Your task to perform on an android device: open sync settings in chrome Image 0: 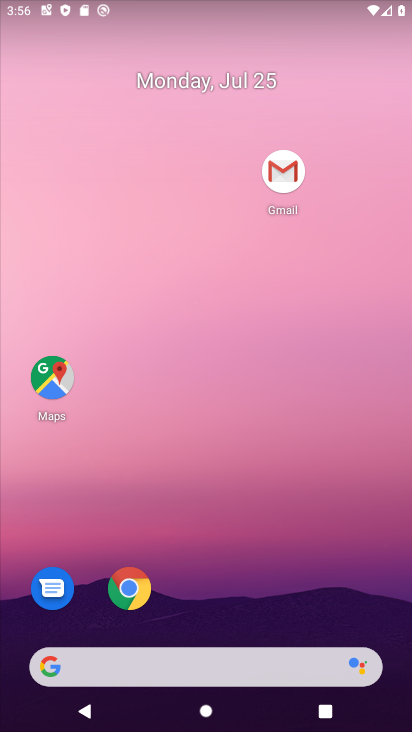
Step 0: drag from (251, 591) to (245, 82)
Your task to perform on an android device: open sync settings in chrome Image 1: 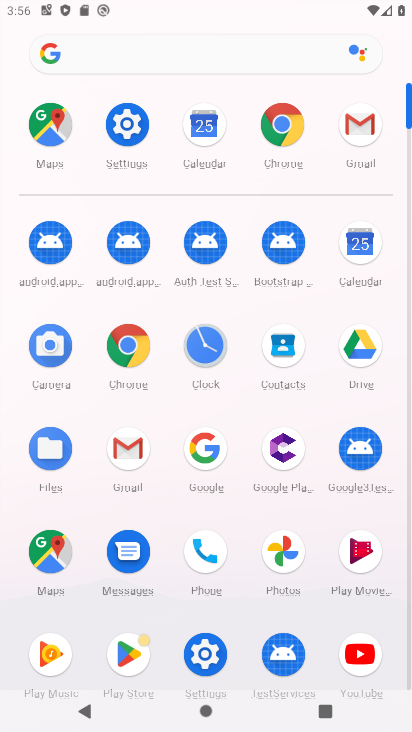
Step 1: click (133, 350)
Your task to perform on an android device: open sync settings in chrome Image 2: 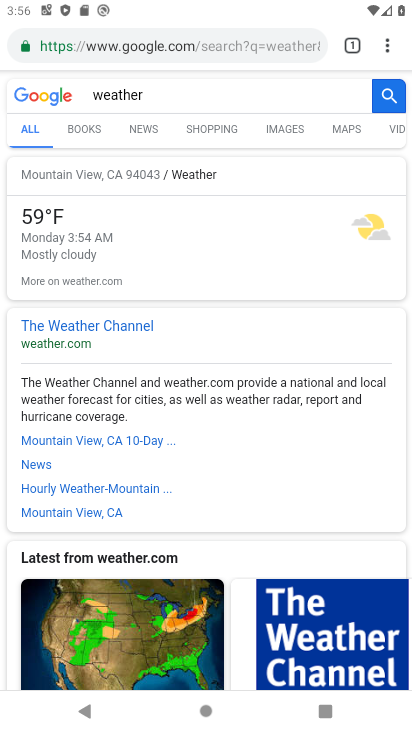
Step 2: drag from (380, 53) to (232, 521)
Your task to perform on an android device: open sync settings in chrome Image 3: 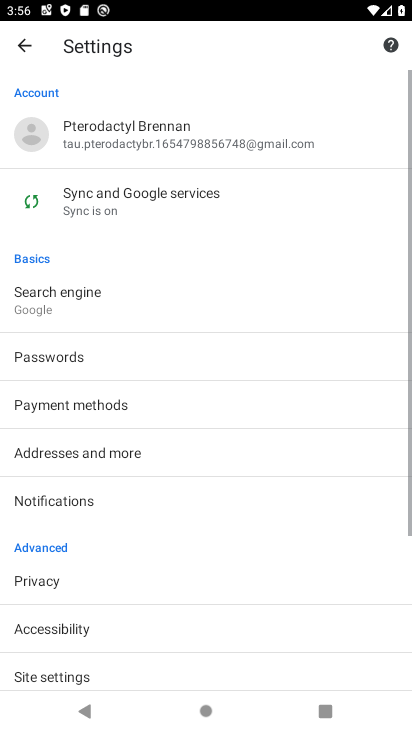
Step 3: drag from (235, 526) to (315, 160)
Your task to perform on an android device: open sync settings in chrome Image 4: 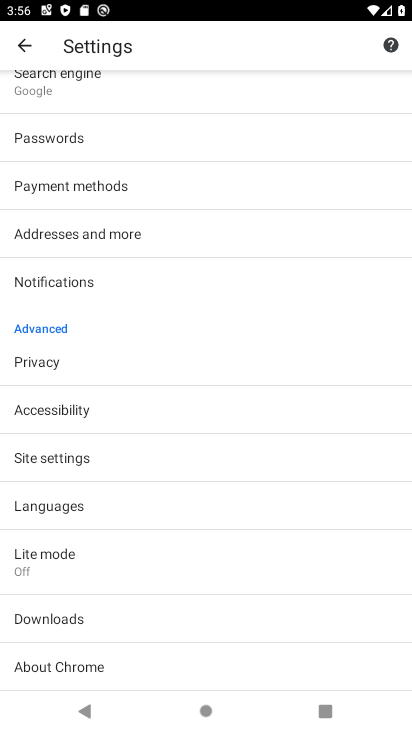
Step 4: drag from (225, 144) to (202, 692)
Your task to perform on an android device: open sync settings in chrome Image 5: 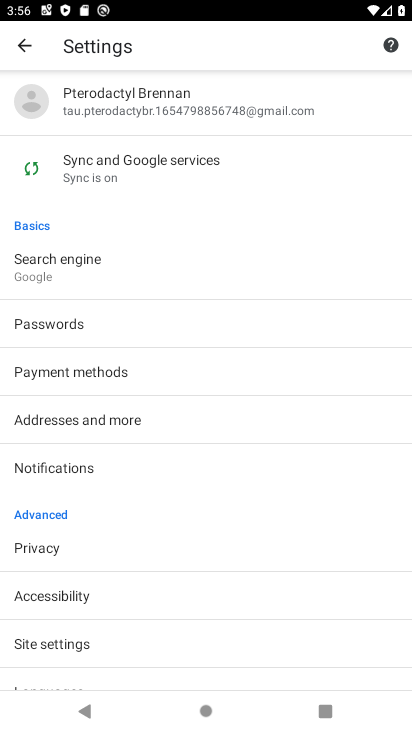
Step 5: click (182, 122)
Your task to perform on an android device: open sync settings in chrome Image 6: 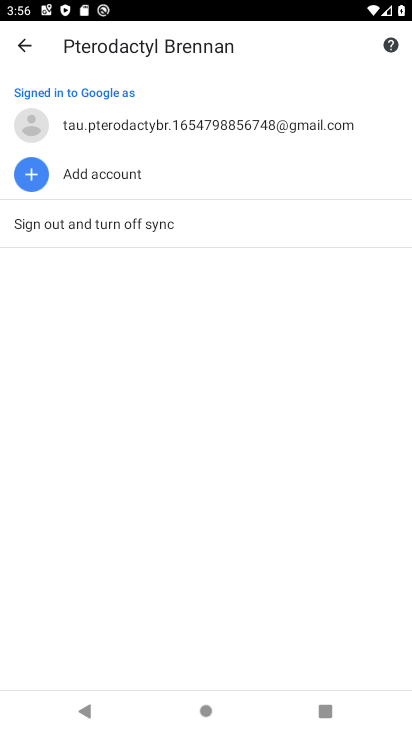
Step 6: click (25, 47)
Your task to perform on an android device: open sync settings in chrome Image 7: 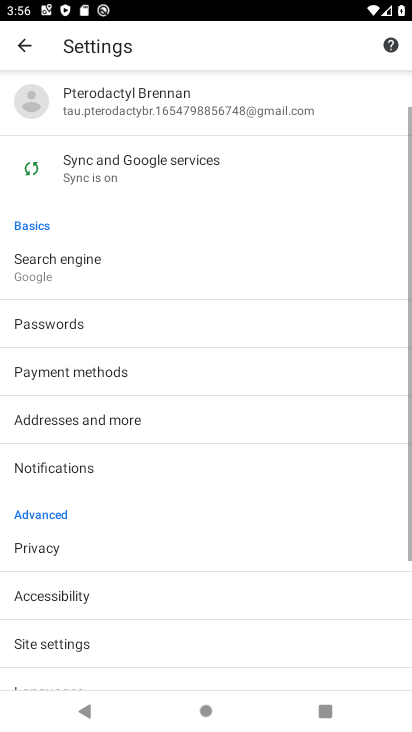
Step 7: click (181, 150)
Your task to perform on an android device: open sync settings in chrome Image 8: 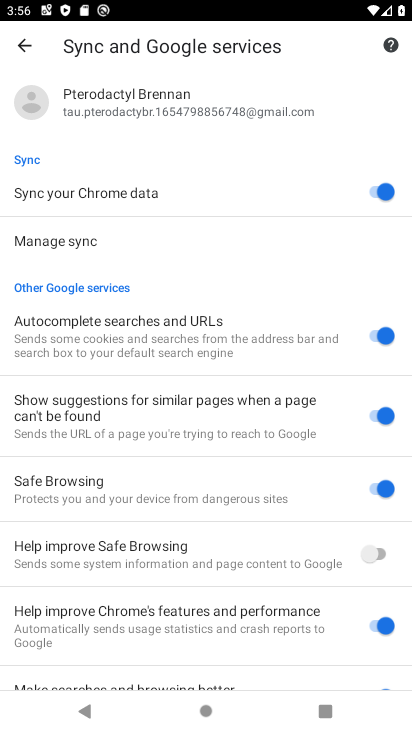
Step 8: task complete